Your task to perform on an android device: uninstall "DuckDuckGo Privacy Browser" Image 0: 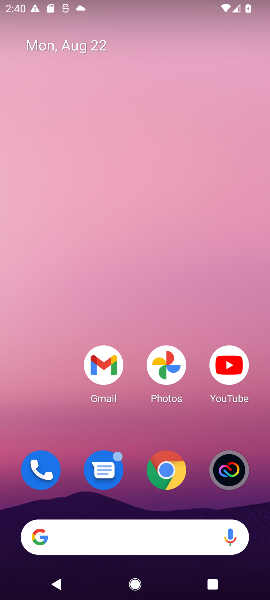
Step 0: drag from (110, 543) to (170, 194)
Your task to perform on an android device: uninstall "DuckDuckGo Privacy Browser" Image 1: 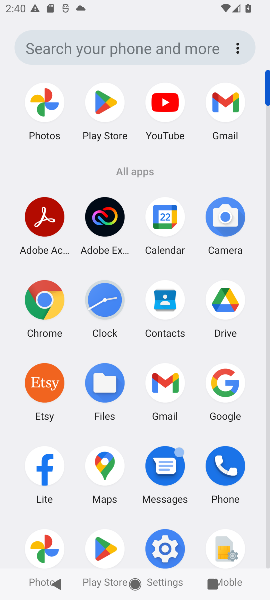
Step 1: click (106, 544)
Your task to perform on an android device: uninstall "DuckDuckGo Privacy Browser" Image 2: 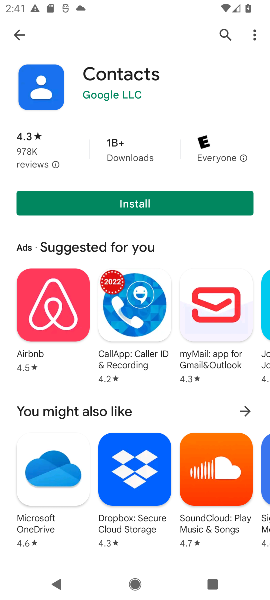
Step 2: click (25, 35)
Your task to perform on an android device: uninstall "DuckDuckGo Privacy Browser" Image 3: 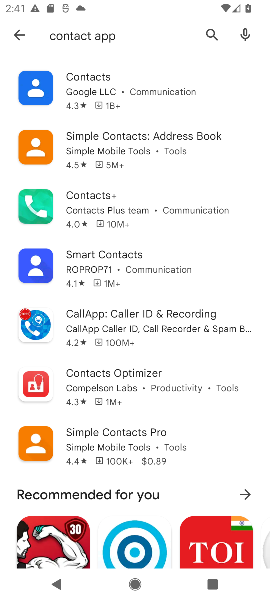
Step 3: click (11, 30)
Your task to perform on an android device: uninstall "DuckDuckGo Privacy Browser" Image 4: 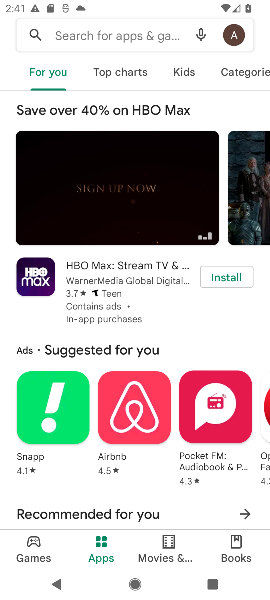
Step 4: click (106, 39)
Your task to perform on an android device: uninstall "DuckDuckGo Privacy Browser" Image 5: 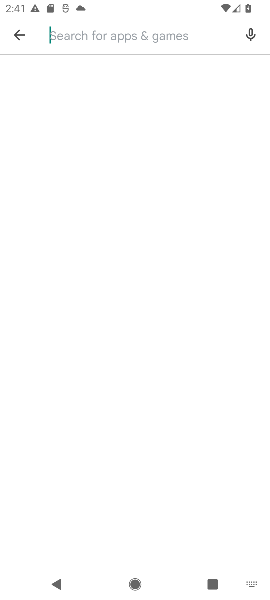
Step 5: click (106, 35)
Your task to perform on an android device: uninstall "DuckDuckGo Privacy Browser" Image 6: 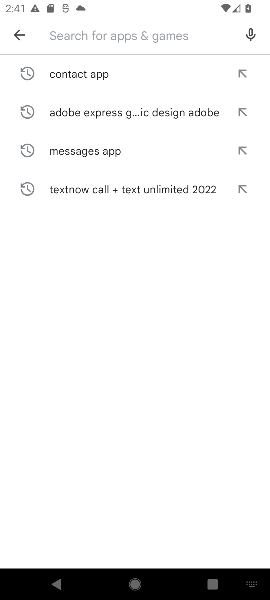
Step 6: type "DuckDuckGo Privacy Browser "
Your task to perform on an android device: uninstall "DuckDuckGo Privacy Browser" Image 7: 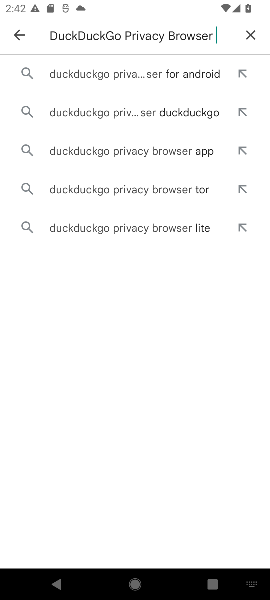
Step 7: click (150, 70)
Your task to perform on an android device: uninstall "DuckDuckGo Privacy Browser" Image 8: 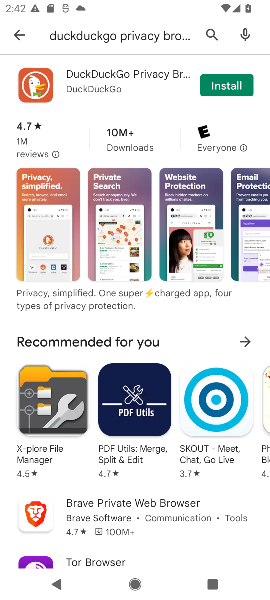
Step 8: task complete